Your task to perform on an android device: Go to settings Image 0: 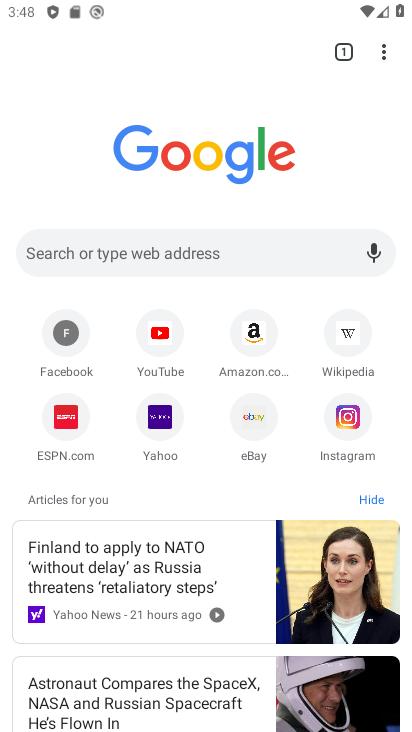
Step 0: drag from (212, 600) to (263, 254)
Your task to perform on an android device: Go to settings Image 1: 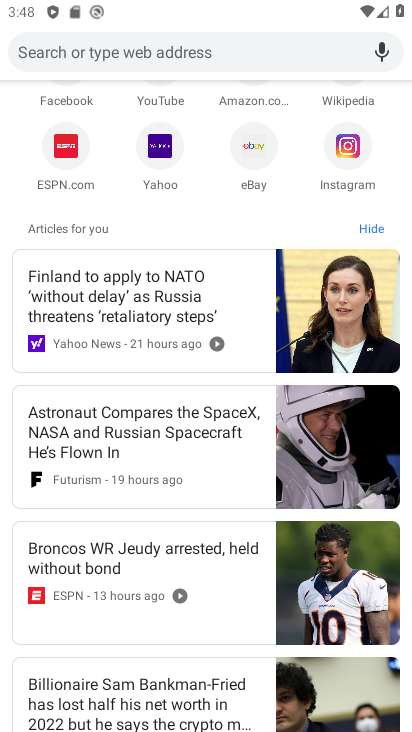
Step 1: press back button
Your task to perform on an android device: Go to settings Image 2: 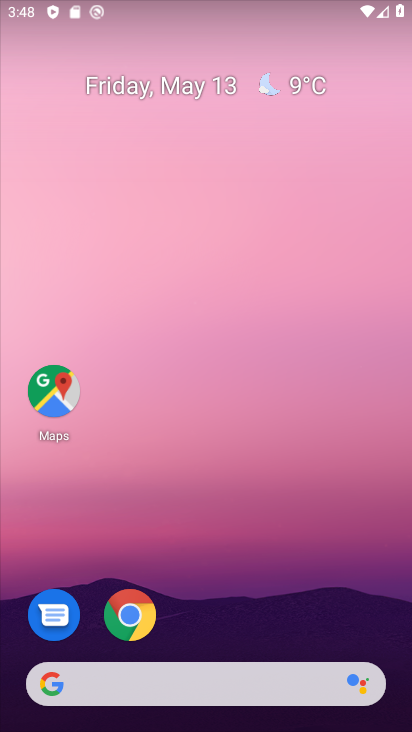
Step 2: drag from (244, 575) to (364, 17)
Your task to perform on an android device: Go to settings Image 3: 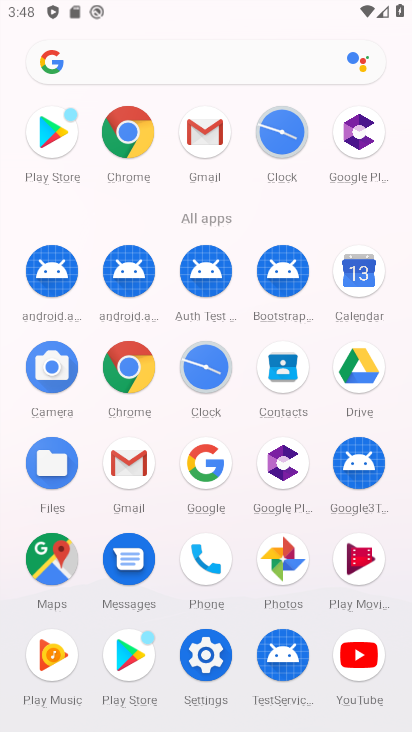
Step 3: click (214, 647)
Your task to perform on an android device: Go to settings Image 4: 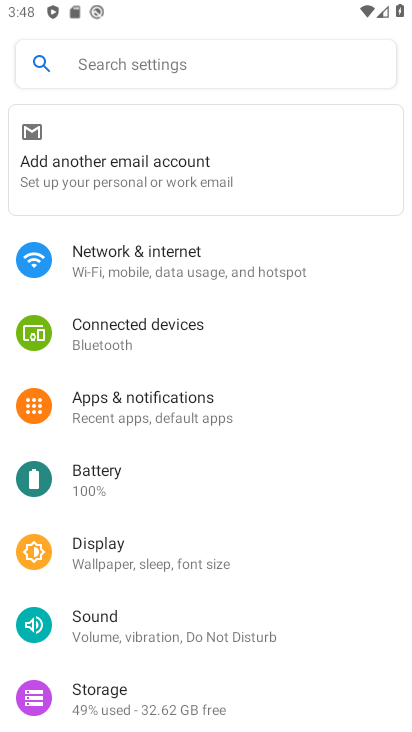
Step 4: task complete